Your task to perform on an android device: Search for vegetarian restaurants on Maps Image 0: 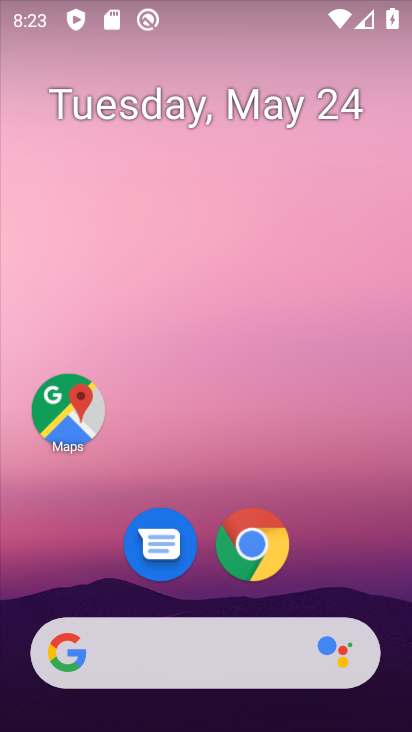
Step 0: click (72, 414)
Your task to perform on an android device: Search for vegetarian restaurants on Maps Image 1: 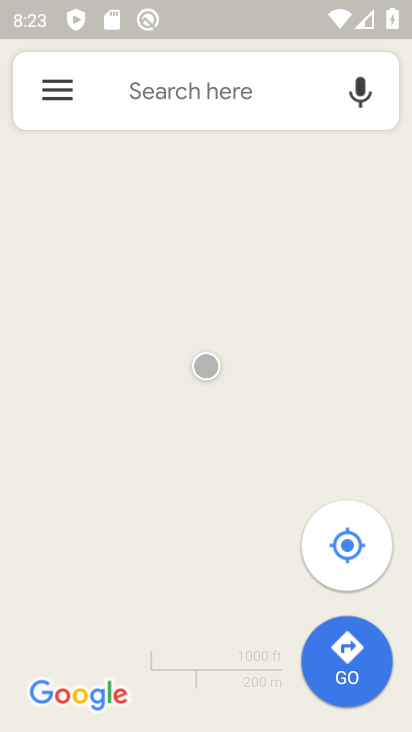
Step 1: click (200, 91)
Your task to perform on an android device: Search for vegetarian restaurants on Maps Image 2: 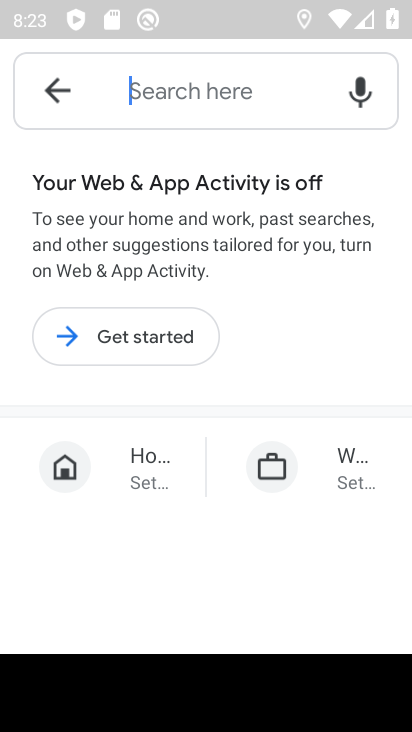
Step 2: drag from (269, 730) to (351, 641)
Your task to perform on an android device: Search for vegetarian restaurants on Maps Image 3: 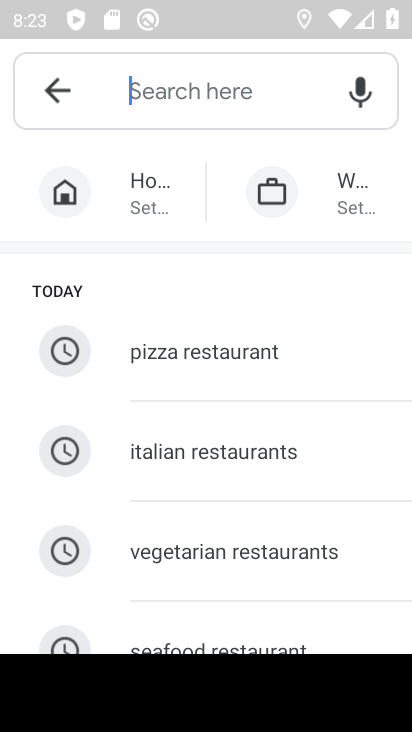
Step 3: click (327, 540)
Your task to perform on an android device: Search for vegetarian restaurants on Maps Image 4: 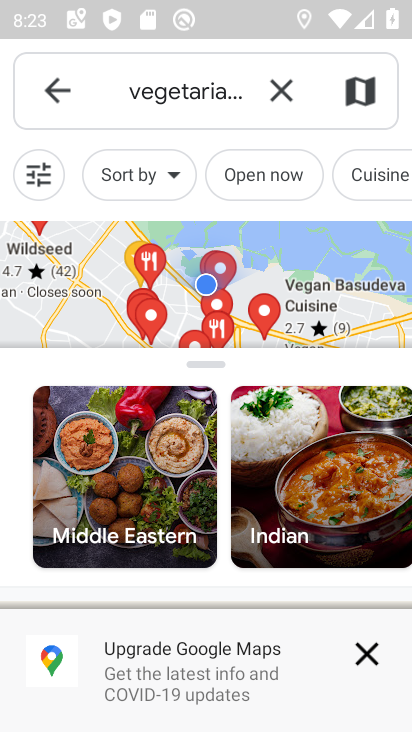
Step 4: task complete